Your task to perform on an android device: turn off airplane mode Image 0: 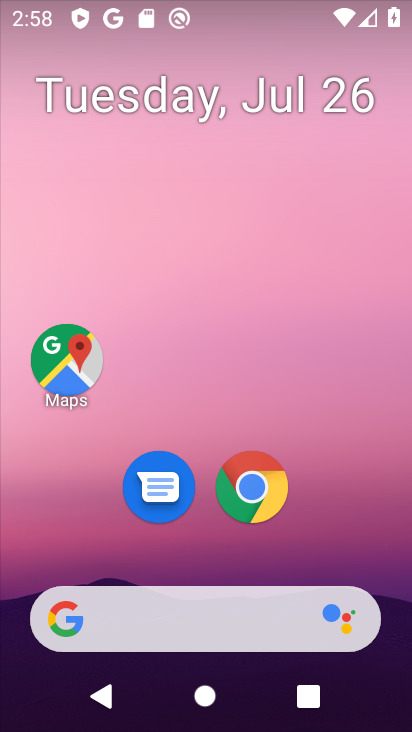
Step 0: drag from (109, 529) to (303, 2)
Your task to perform on an android device: turn off airplane mode Image 1: 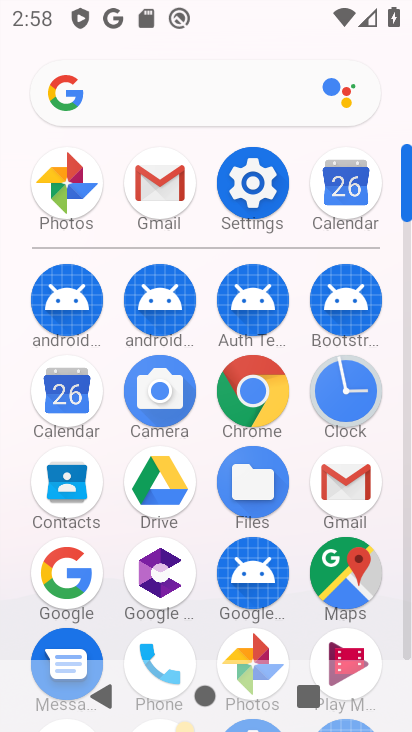
Step 1: task complete